Your task to perform on an android device: Open battery settings Image 0: 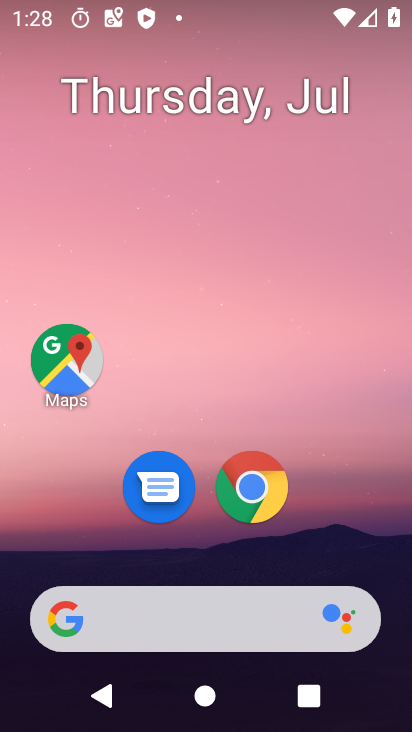
Step 0: drag from (200, 620) to (305, 191)
Your task to perform on an android device: Open battery settings Image 1: 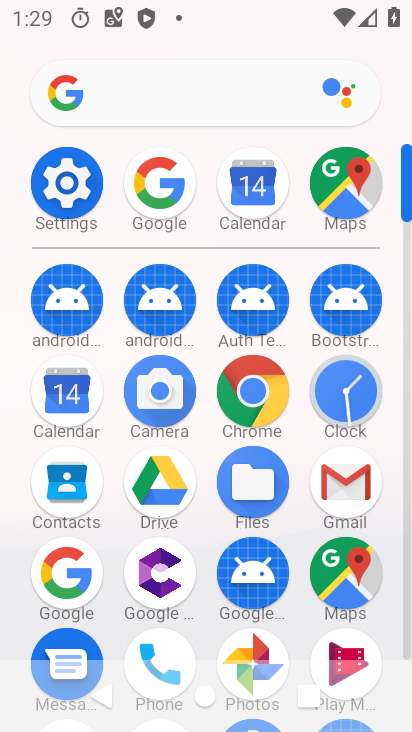
Step 1: drag from (234, 558) to (345, 195)
Your task to perform on an android device: Open battery settings Image 2: 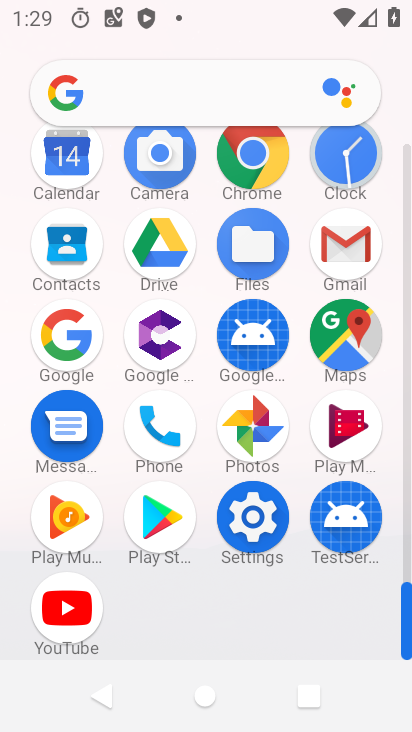
Step 2: click (243, 533)
Your task to perform on an android device: Open battery settings Image 3: 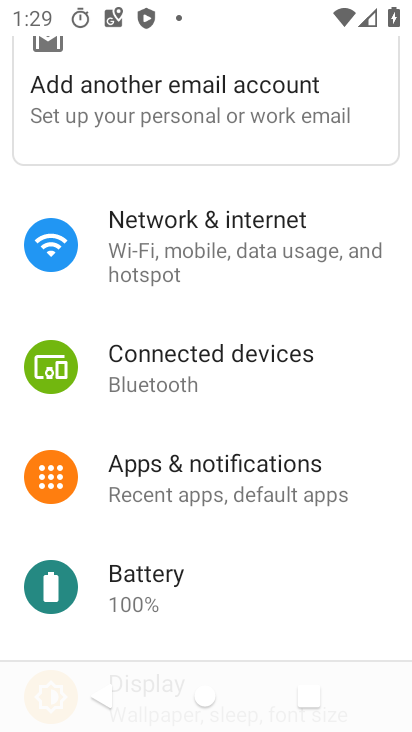
Step 3: drag from (199, 349) to (228, 237)
Your task to perform on an android device: Open battery settings Image 4: 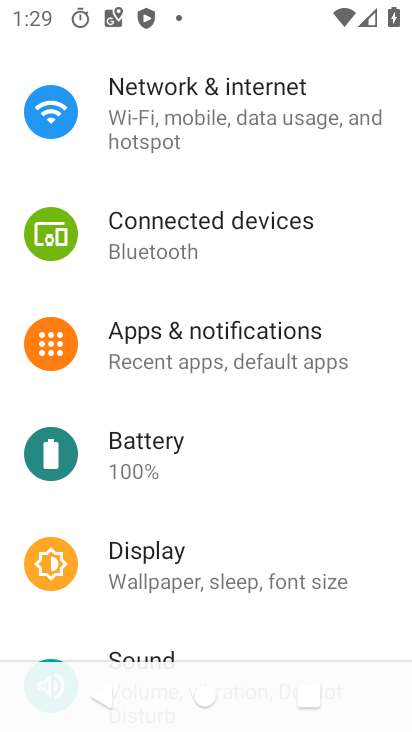
Step 4: click (158, 455)
Your task to perform on an android device: Open battery settings Image 5: 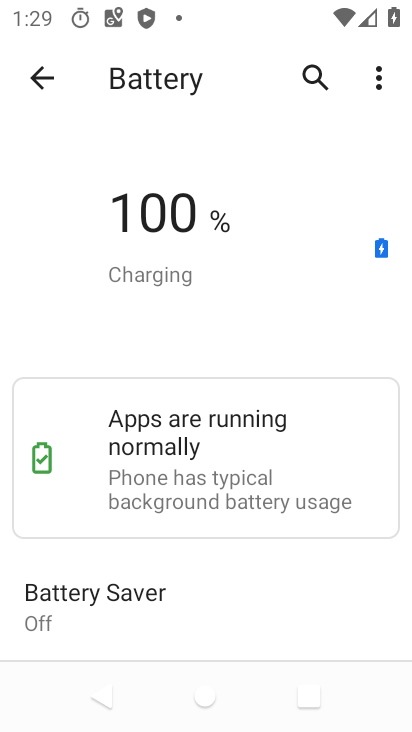
Step 5: task complete